Your task to perform on an android device: turn off airplane mode Image 0: 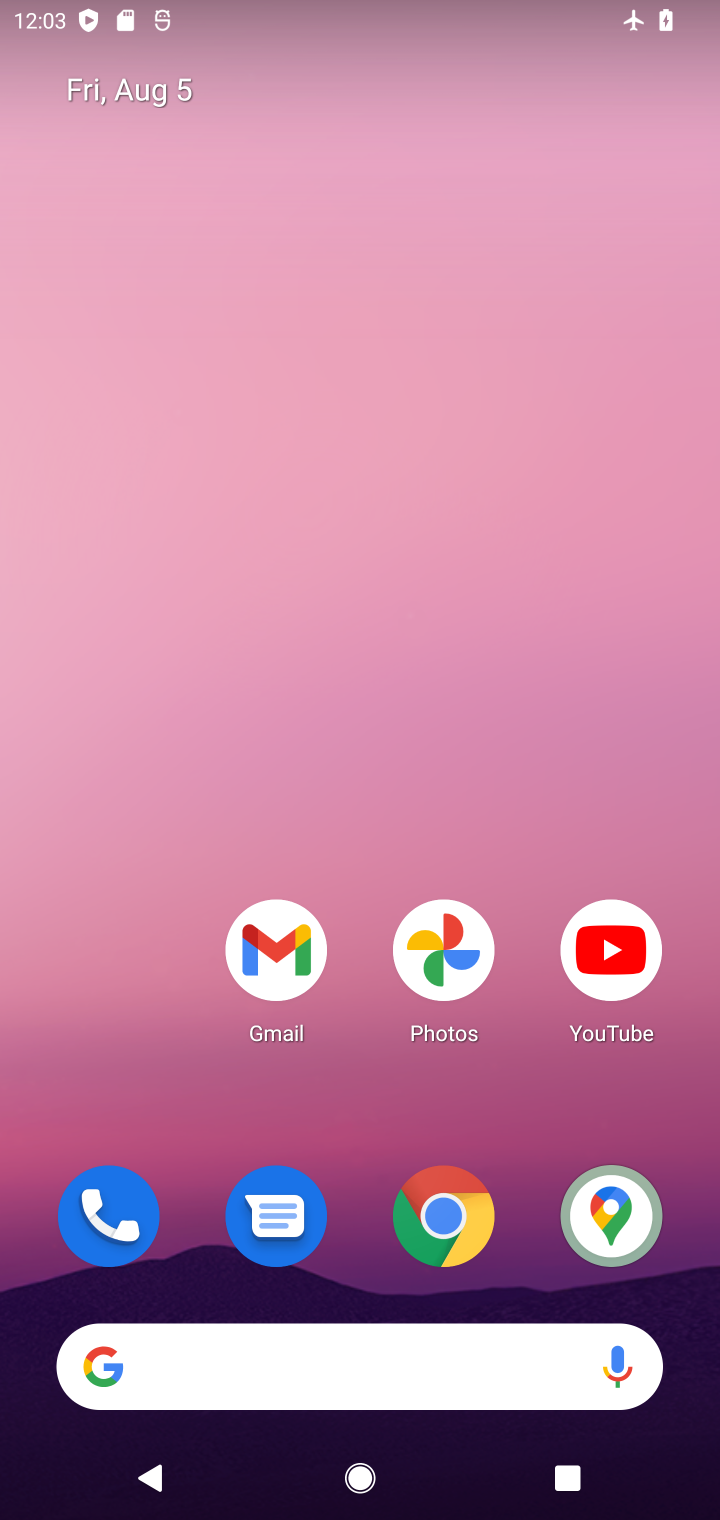
Step 0: drag from (388, 1347) to (470, 26)
Your task to perform on an android device: turn off airplane mode Image 1: 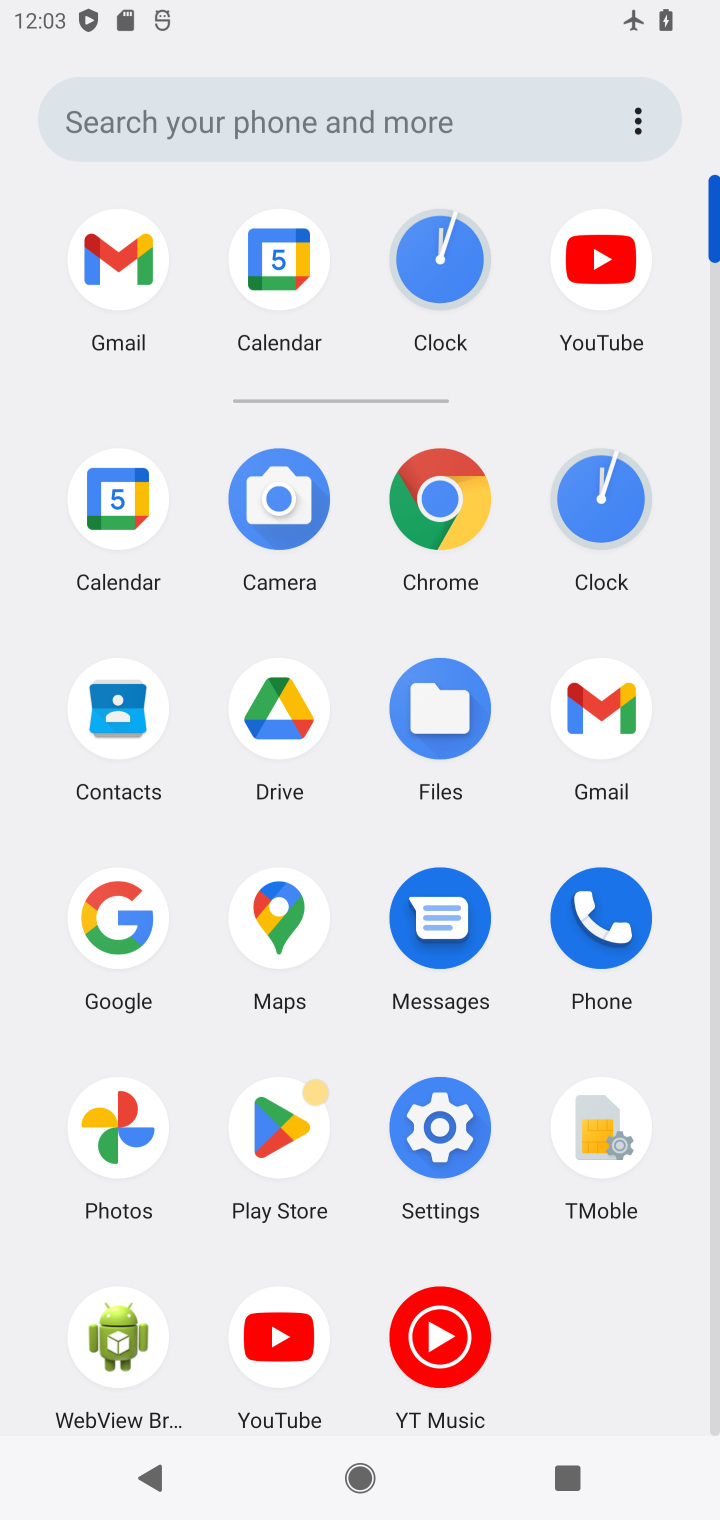
Step 1: click (446, 1119)
Your task to perform on an android device: turn off airplane mode Image 2: 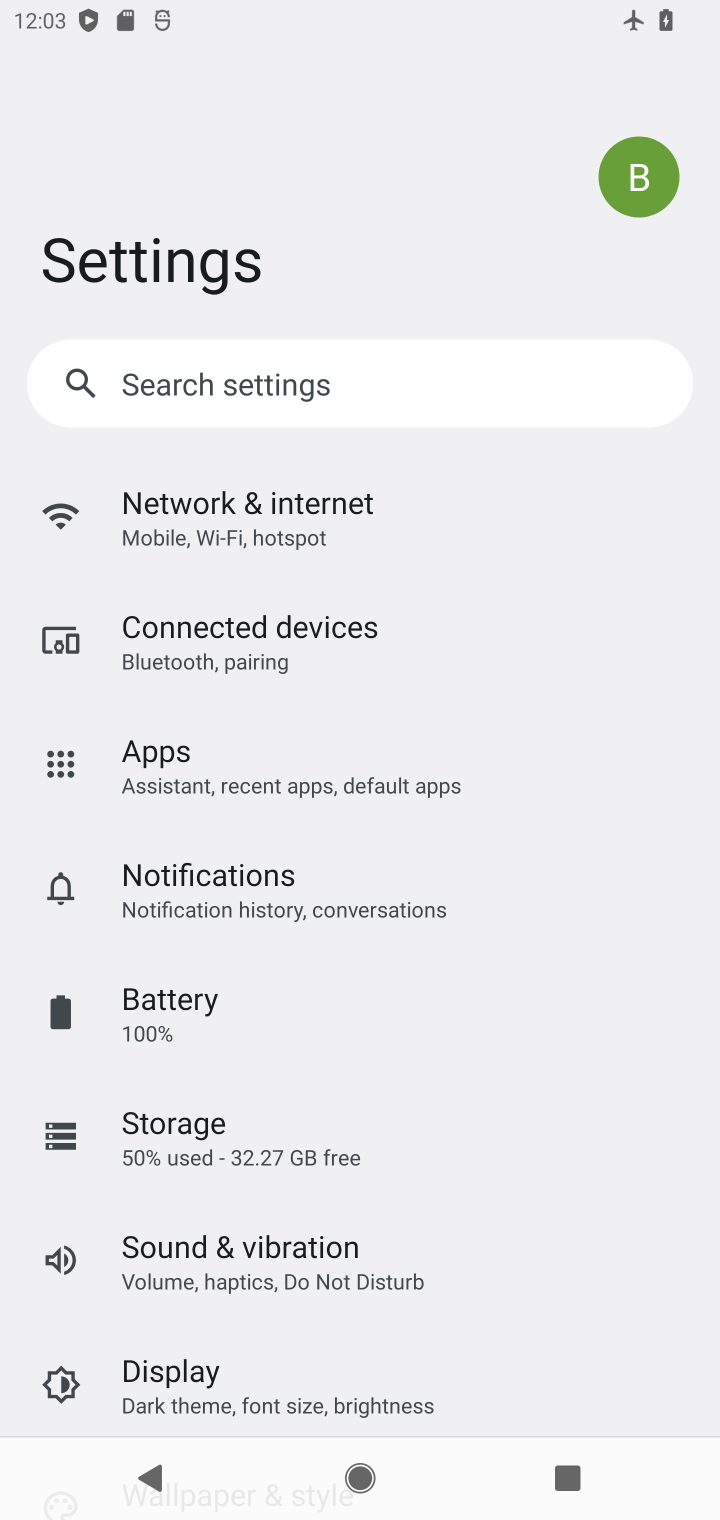
Step 2: click (256, 539)
Your task to perform on an android device: turn off airplane mode Image 3: 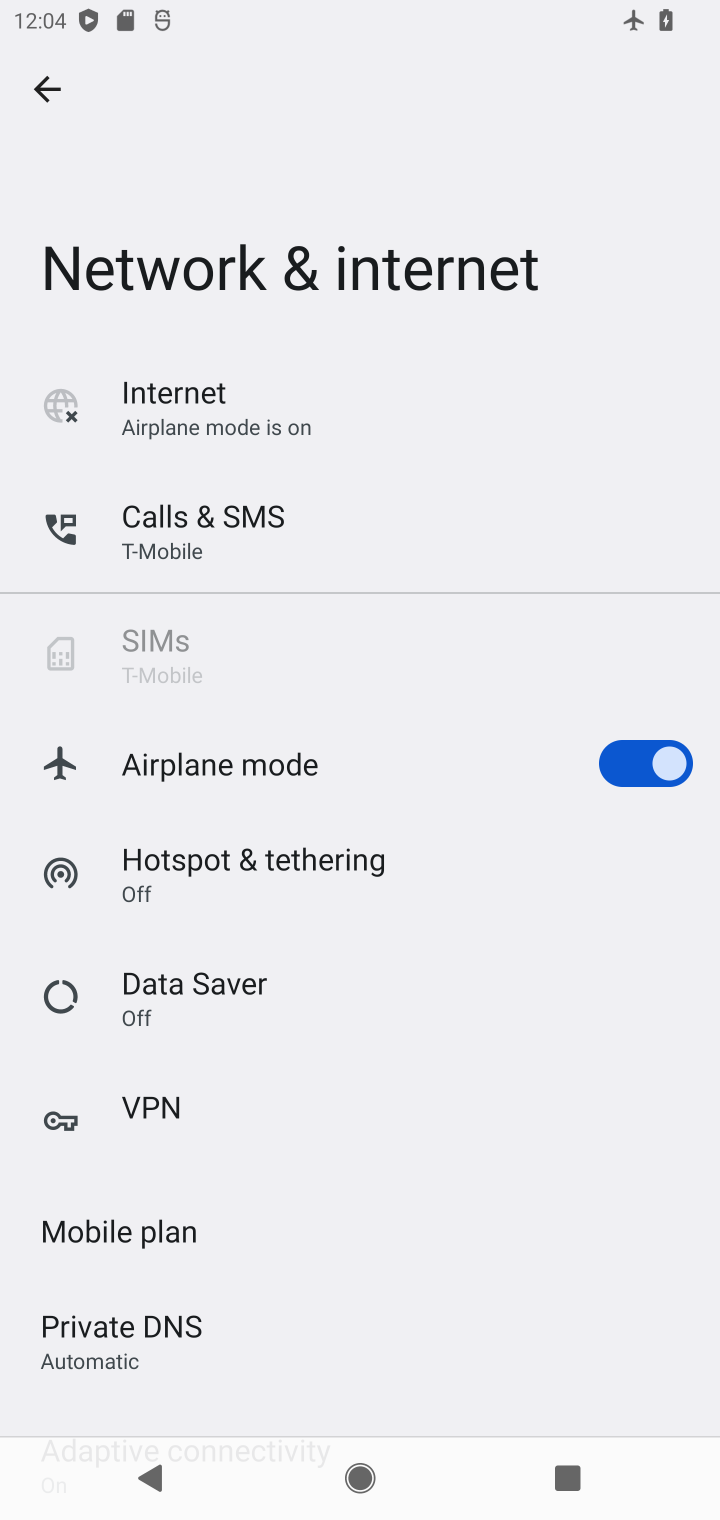
Step 3: click (643, 755)
Your task to perform on an android device: turn off airplane mode Image 4: 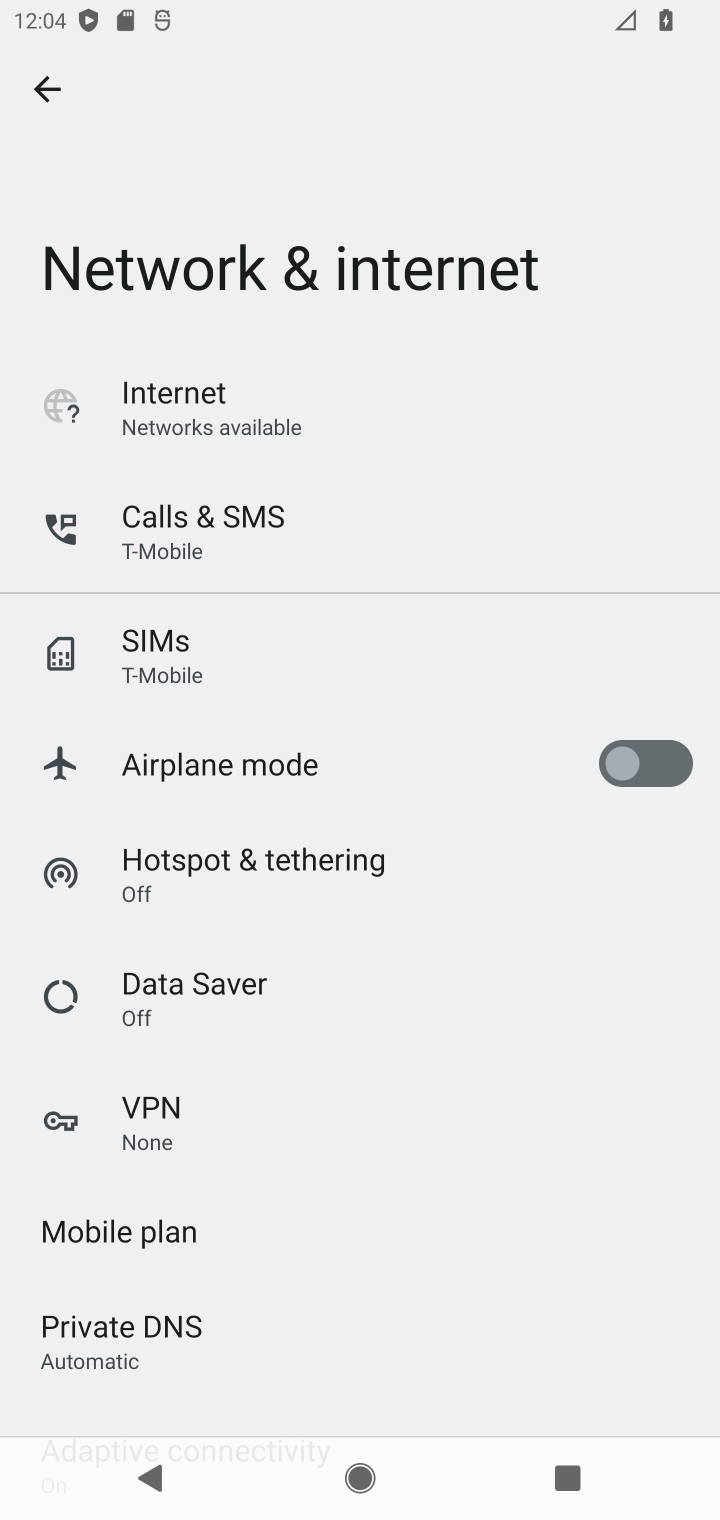
Step 4: task complete